Your task to perform on an android device: turn off javascript in the chrome app Image 0: 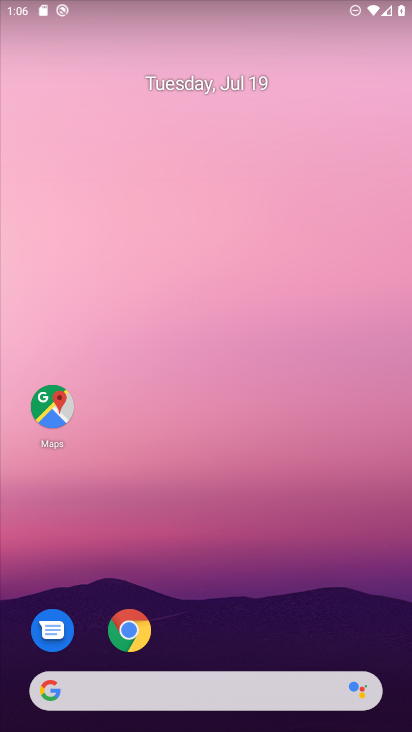
Step 0: press home button
Your task to perform on an android device: turn off javascript in the chrome app Image 1: 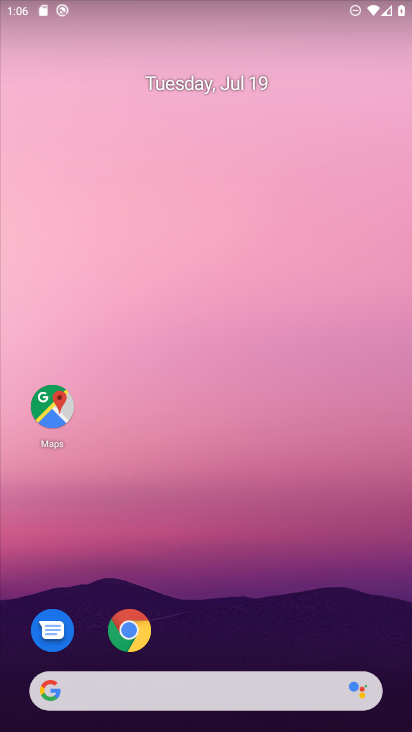
Step 1: click (127, 637)
Your task to perform on an android device: turn off javascript in the chrome app Image 2: 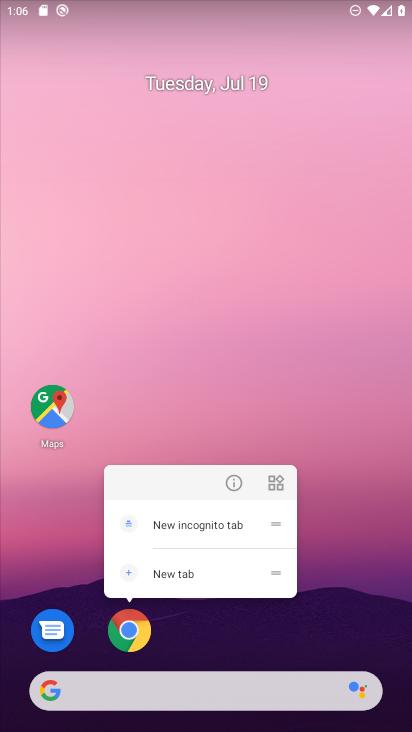
Step 2: click (124, 636)
Your task to perform on an android device: turn off javascript in the chrome app Image 3: 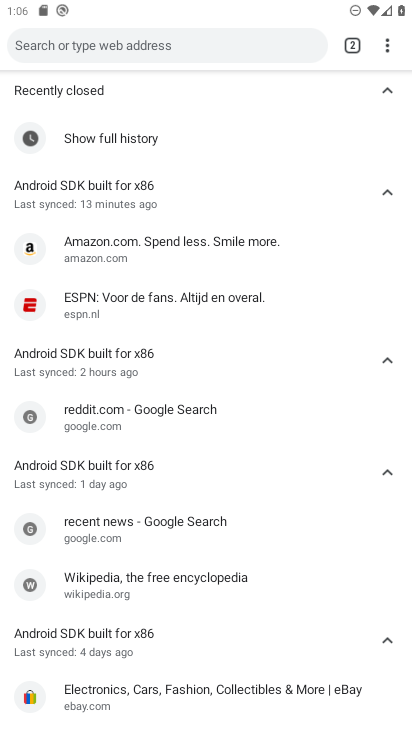
Step 3: drag from (385, 46) to (256, 383)
Your task to perform on an android device: turn off javascript in the chrome app Image 4: 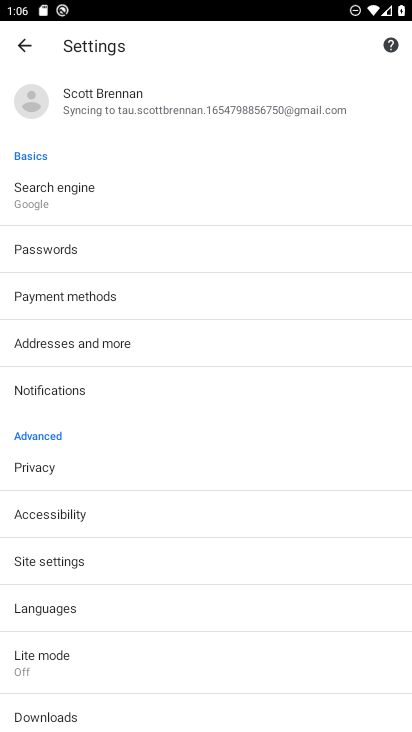
Step 4: click (62, 567)
Your task to perform on an android device: turn off javascript in the chrome app Image 5: 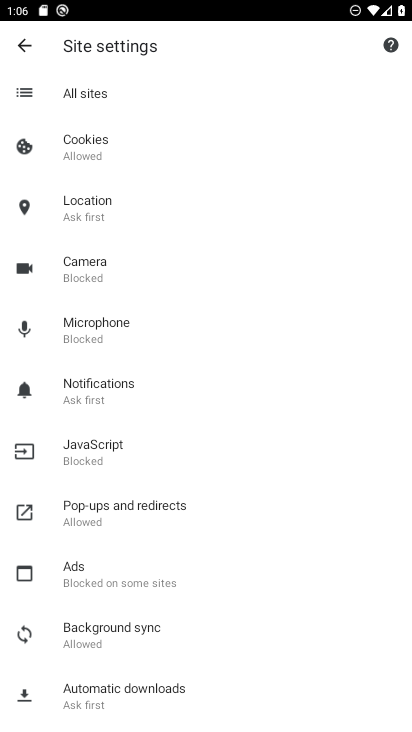
Step 5: click (79, 447)
Your task to perform on an android device: turn off javascript in the chrome app Image 6: 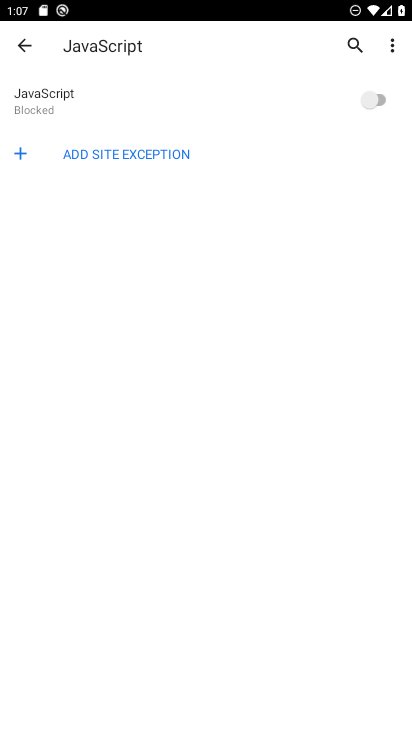
Step 6: task complete